Your task to perform on an android device: Open Google Image 0: 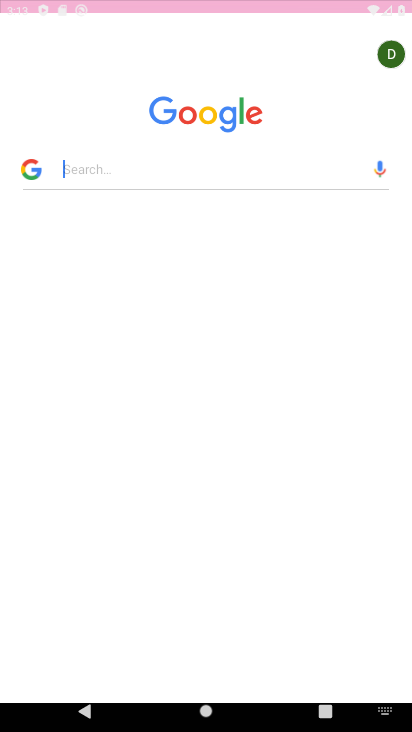
Step 0: press home button
Your task to perform on an android device: Open Google Image 1: 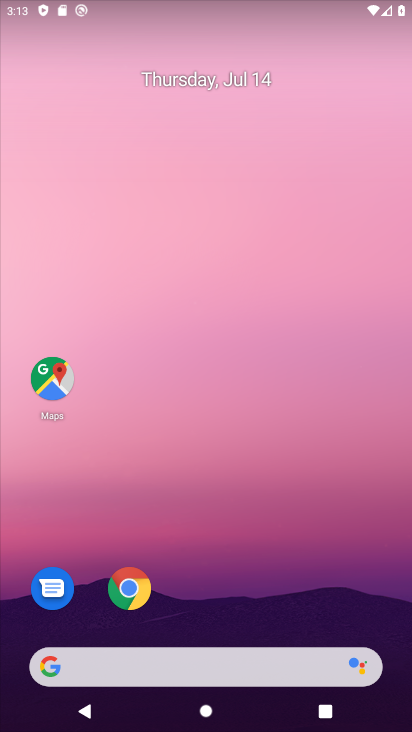
Step 1: click (53, 674)
Your task to perform on an android device: Open Google Image 2: 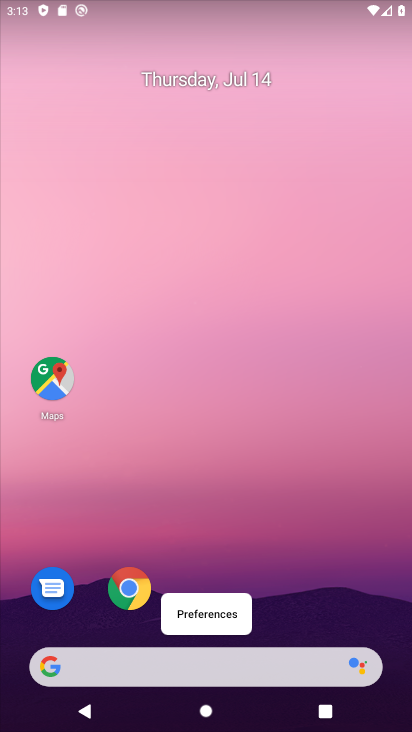
Step 2: click (53, 674)
Your task to perform on an android device: Open Google Image 3: 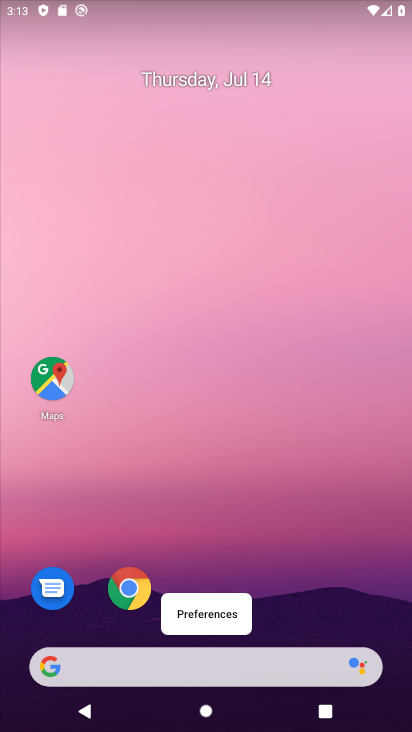
Step 3: click (53, 674)
Your task to perform on an android device: Open Google Image 4: 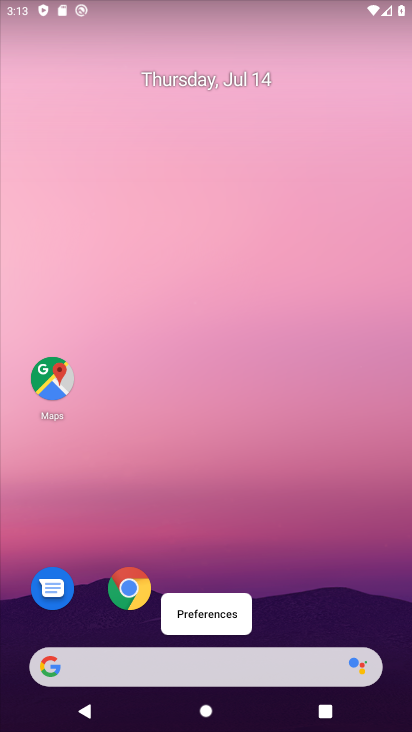
Step 4: drag from (295, 630) to (307, 102)
Your task to perform on an android device: Open Google Image 5: 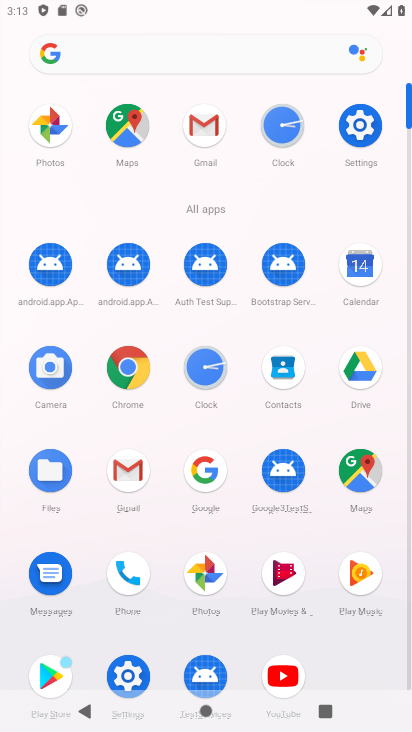
Step 5: click (198, 475)
Your task to perform on an android device: Open Google Image 6: 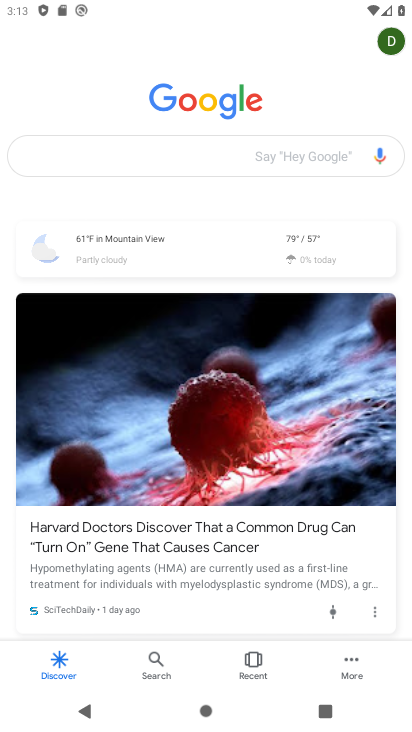
Step 6: task complete